Your task to perform on an android device: Is it going to rain tomorrow? Image 0: 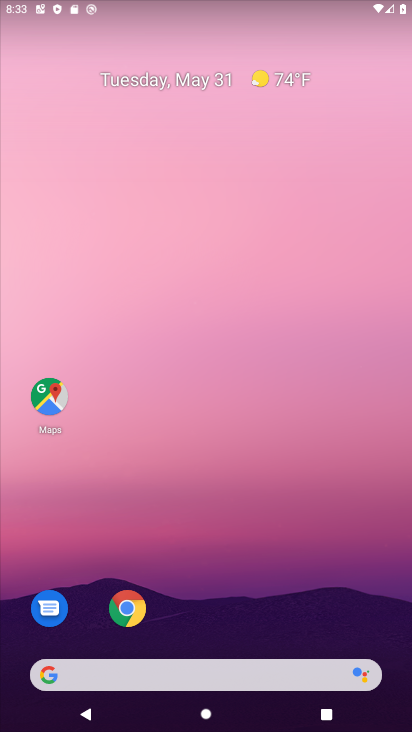
Step 0: click (249, 672)
Your task to perform on an android device: Is it going to rain tomorrow? Image 1: 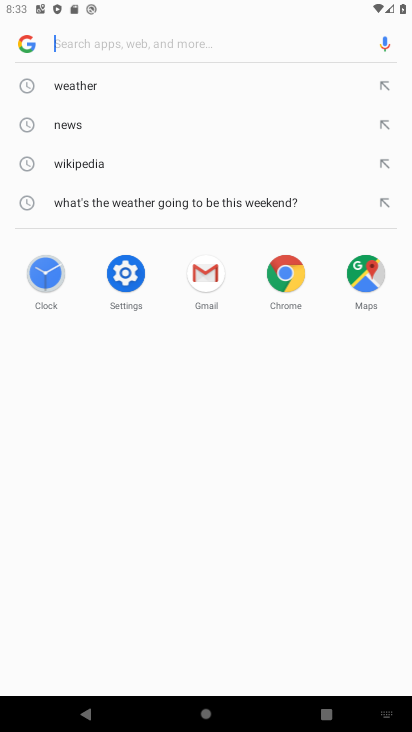
Step 1: click (97, 92)
Your task to perform on an android device: Is it going to rain tomorrow? Image 2: 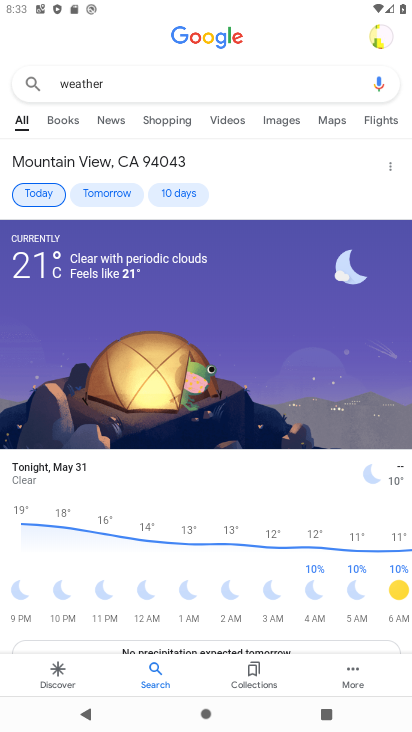
Step 2: click (119, 190)
Your task to perform on an android device: Is it going to rain tomorrow? Image 3: 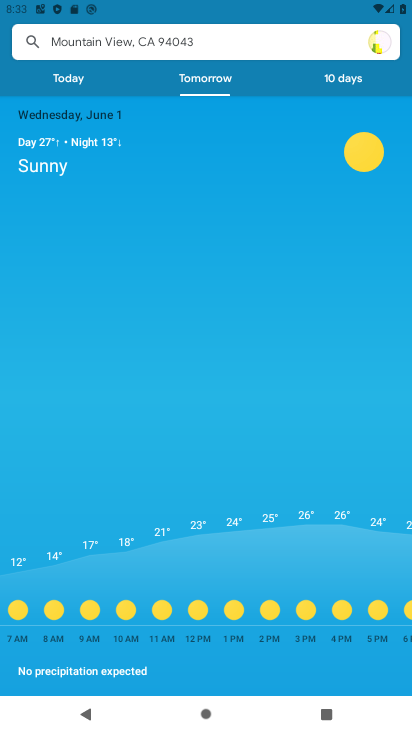
Step 3: task complete